Your task to perform on an android device: Go to ESPN.com Image 0: 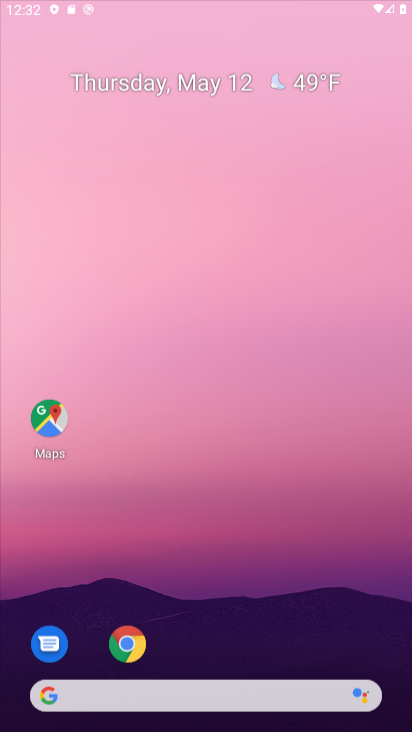
Step 0: press home button
Your task to perform on an android device: Go to ESPN.com Image 1: 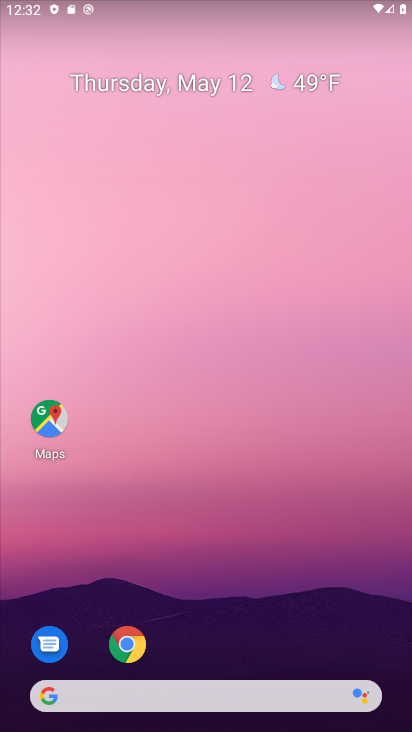
Step 1: click (124, 639)
Your task to perform on an android device: Go to ESPN.com Image 2: 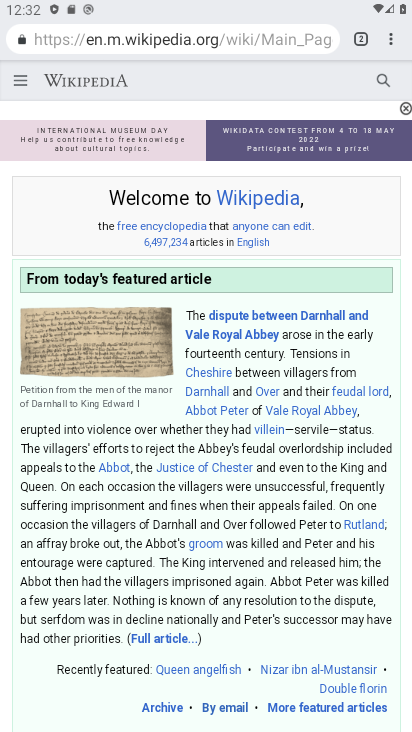
Step 2: click (392, 37)
Your task to perform on an android device: Go to ESPN.com Image 3: 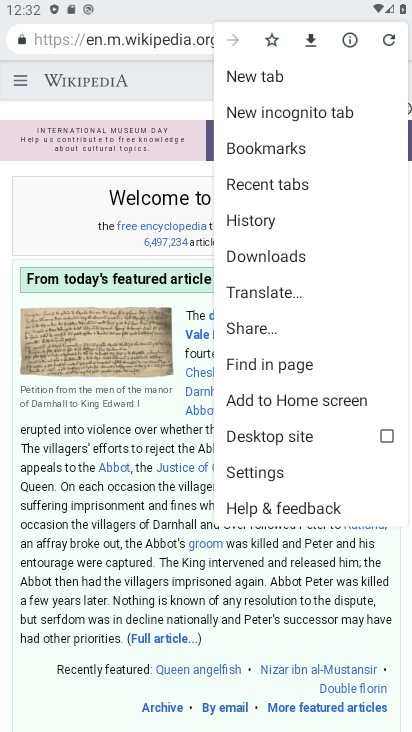
Step 3: click (246, 74)
Your task to perform on an android device: Go to ESPN.com Image 4: 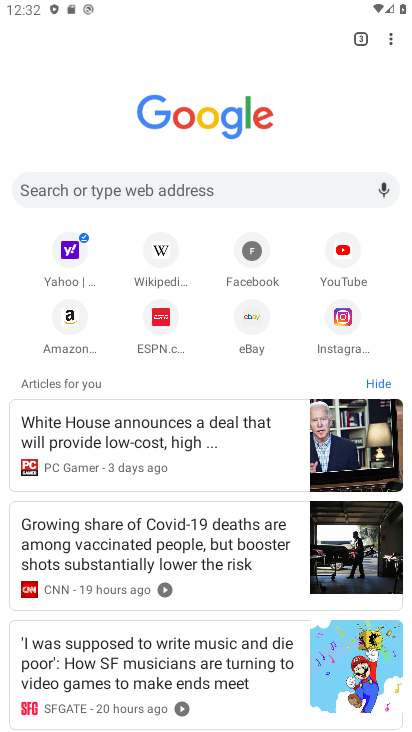
Step 4: click (155, 326)
Your task to perform on an android device: Go to ESPN.com Image 5: 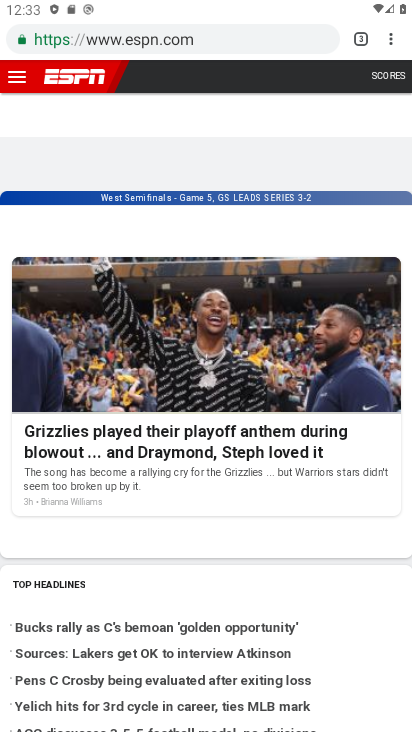
Step 5: task complete